Your task to perform on an android device: turn on airplane mode Image 0: 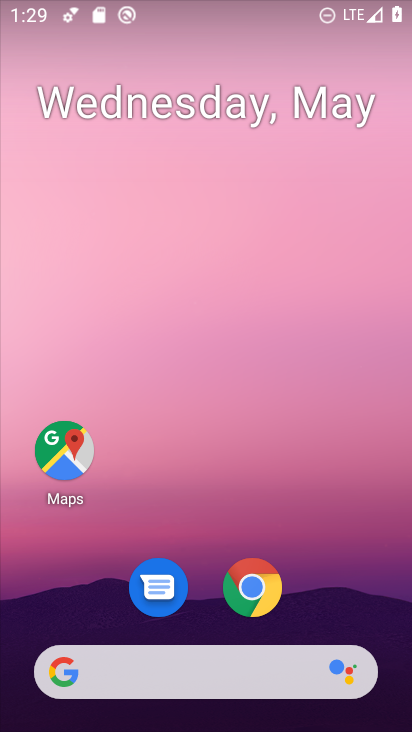
Step 0: drag from (323, 615) to (274, 99)
Your task to perform on an android device: turn on airplane mode Image 1: 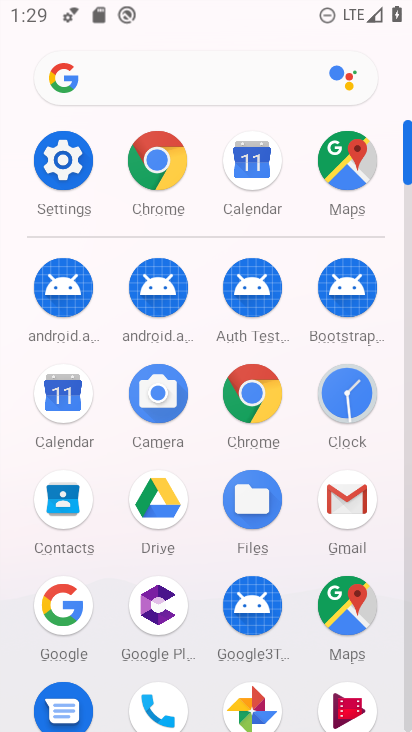
Step 1: click (48, 192)
Your task to perform on an android device: turn on airplane mode Image 2: 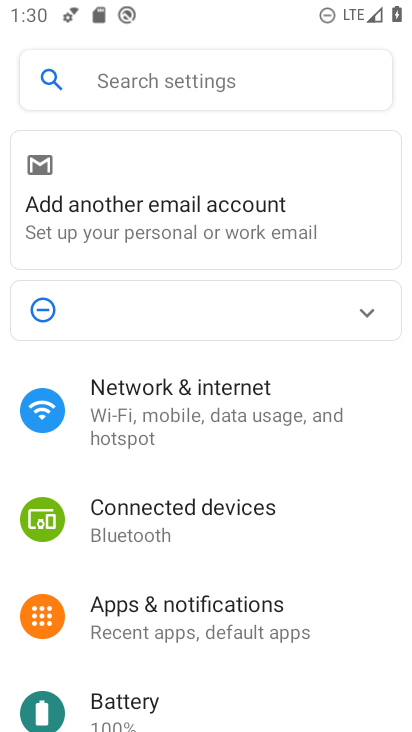
Step 2: click (275, 425)
Your task to perform on an android device: turn on airplane mode Image 3: 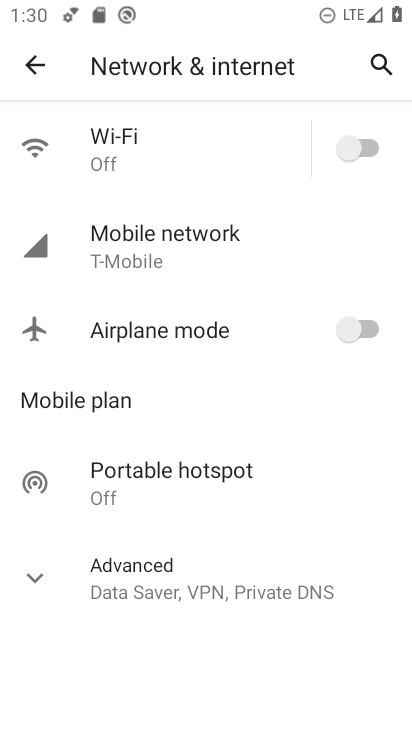
Step 3: click (368, 341)
Your task to perform on an android device: turn on airplane mode Image 4: 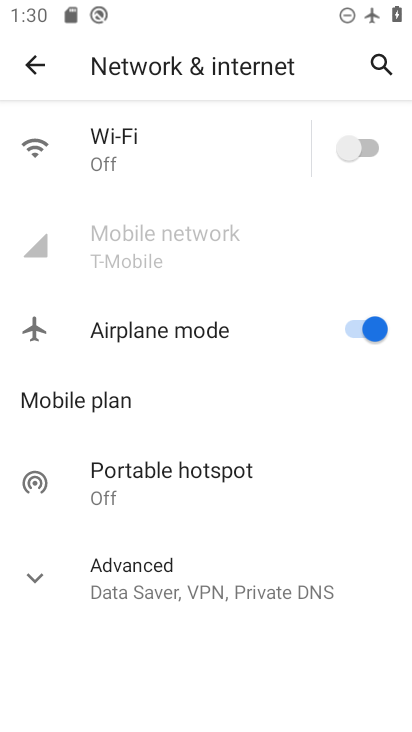
Step 4: task complete